Your task to perform on an android device: Go to Wikipedia Image 0: 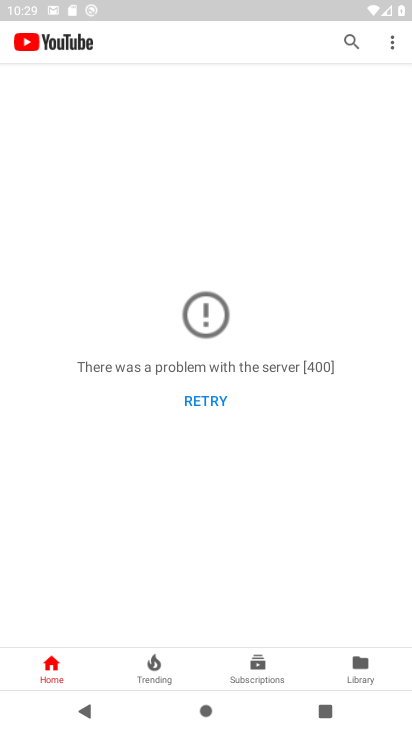
Step 0: press home button
Your task to perform on an android device: Go to Wikipedia Image 1: 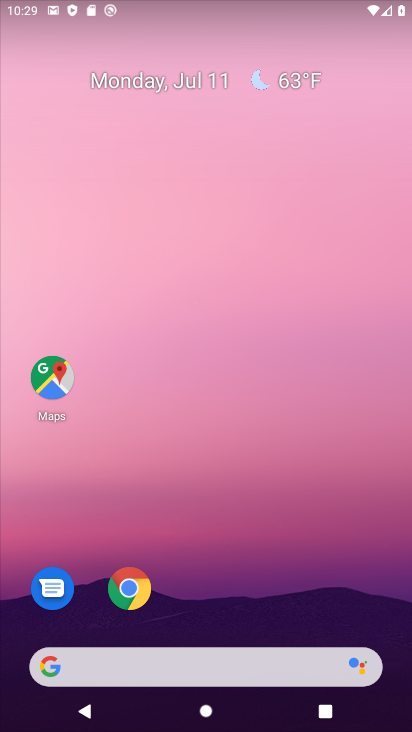
Step 1: click (129, 591)
Your task to perform on an android device: Go to Wikipedia Image 2: 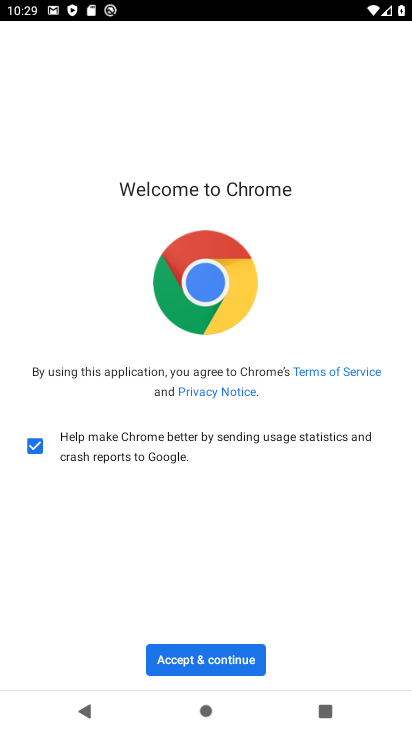
Step 2: click (232, 663)
Your task to perform on an android device: Go to Wikipedia Image 3: 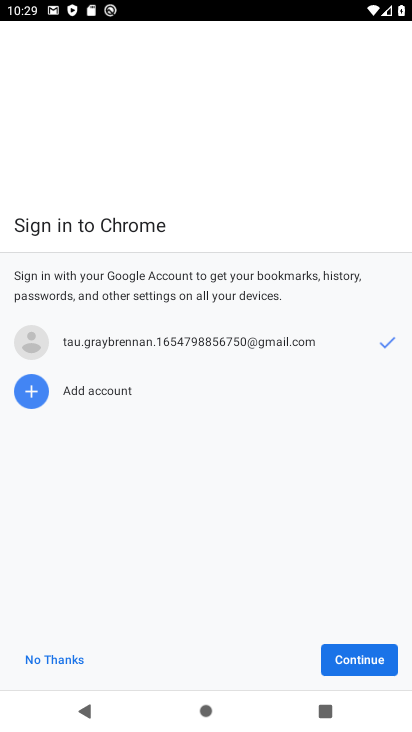
Step 3: click (366, 660)
Your task to perform on an android device: Go to Wikipedia Image 4: 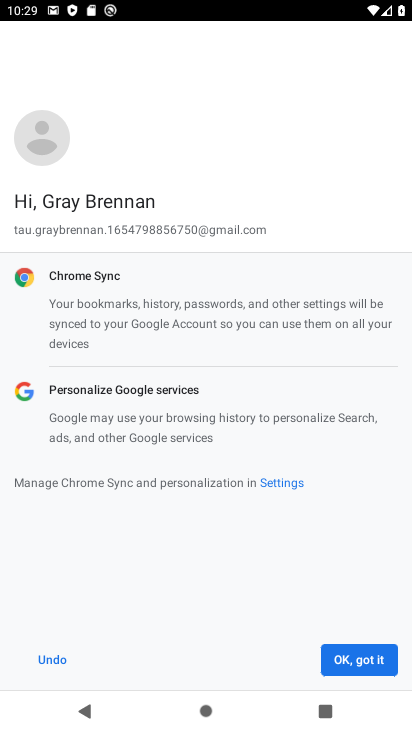
Step 4: click (377, 659)
Your task to perform on an android device: Go to Wikipedia Image 5: 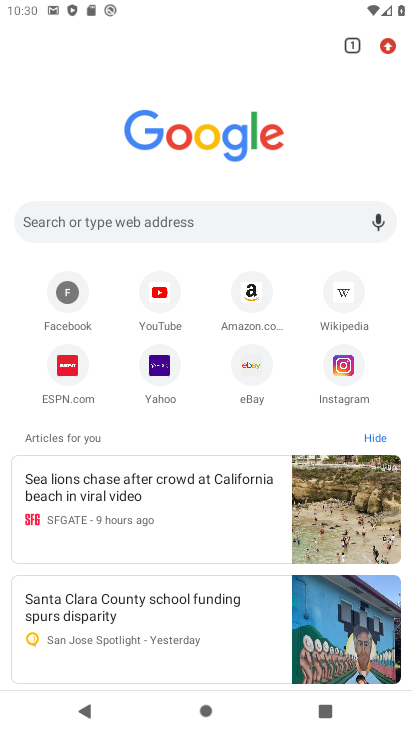
Step 5: click (347, 290)
Your task to perform on an android device: Go to Wikipedia Image 6: 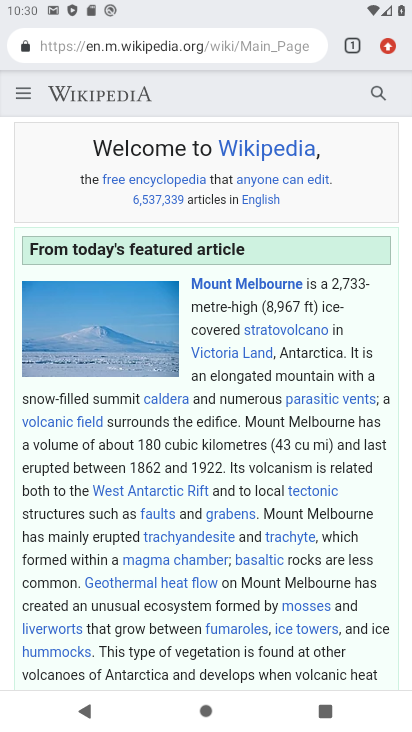
Step 6: task complete